Your task to perform on an android device: change the clock display to digital Image 0: 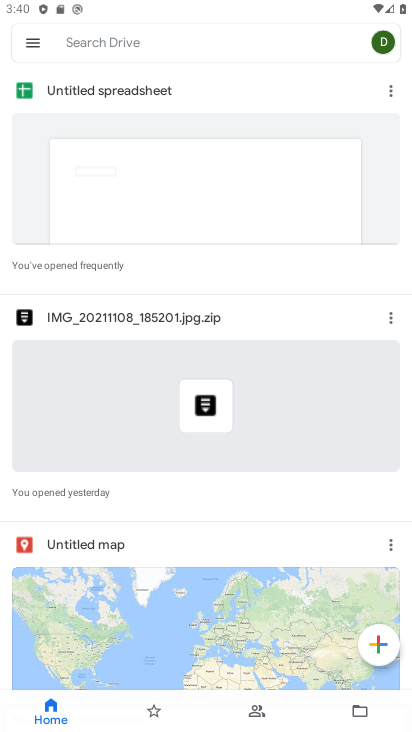
Step 0: press home button
Your task to perform on an android device: change the clock display to digital Image 1: 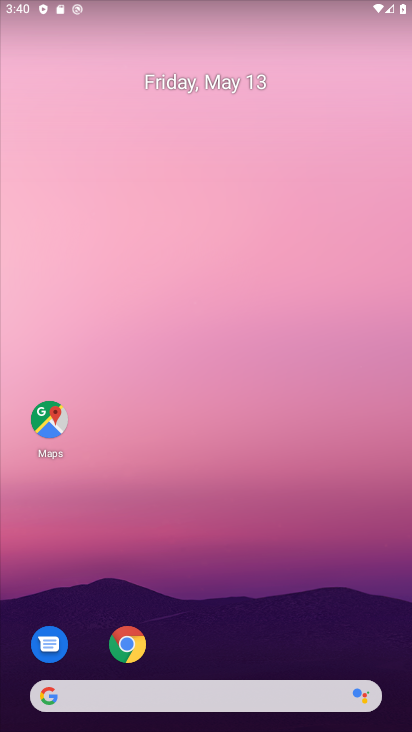
Step 1: drag from (329, 604) to (249, 58)
Your task to perform on an android device: change the clock display to digital Image 2: 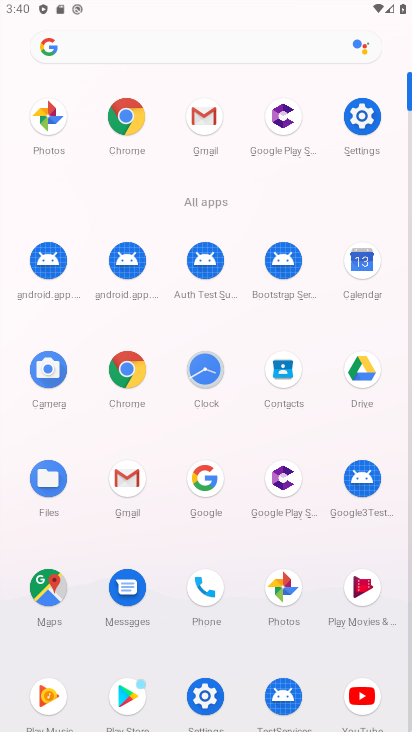
Step 2: click (205, 375)
Your task to perform on an android device: change the clock display to digital Image 3: 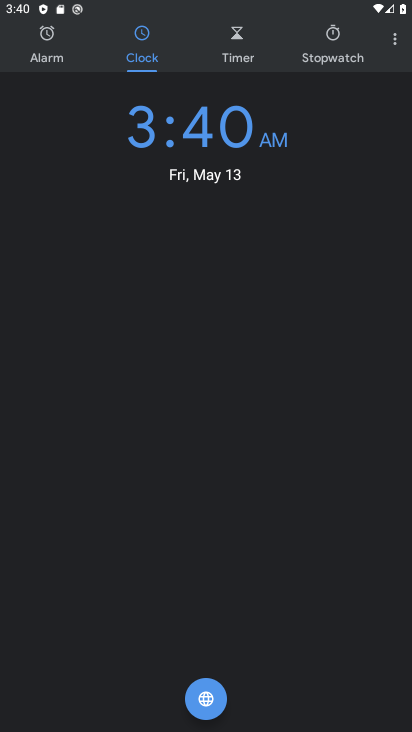
Step 3: click (395, 45)
Your task to perform on an android device: change the clock display to digital Image 4: 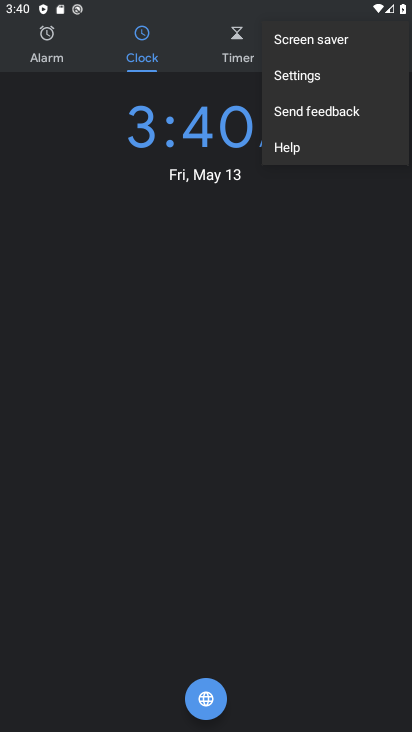
Step 4: click (314, 74)
Your task to perform on an android device: change the clock display to digital Image 5: 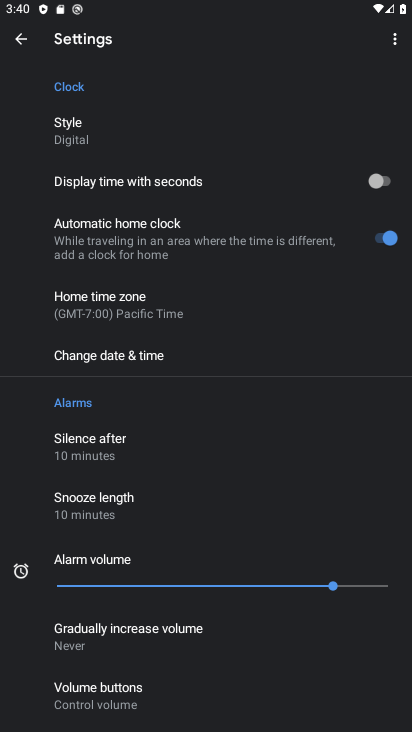
Step 5: task complete